Your task to perform on an android device: see sites visited before in the chrome app Image 0: 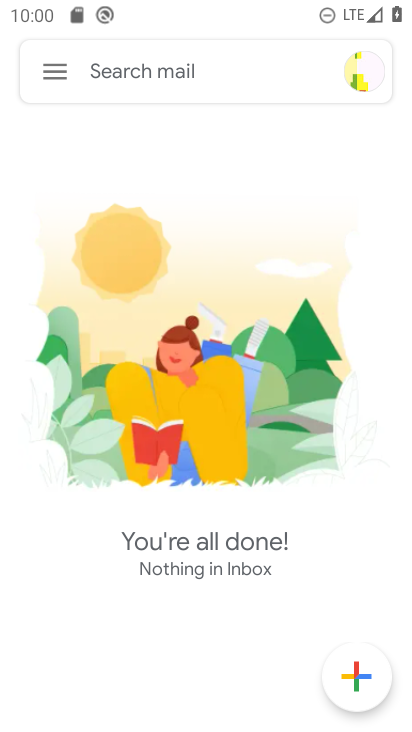
Step 0: press home button
Your task to perform on an android device: see sites visited before in the chrome app Image 1: 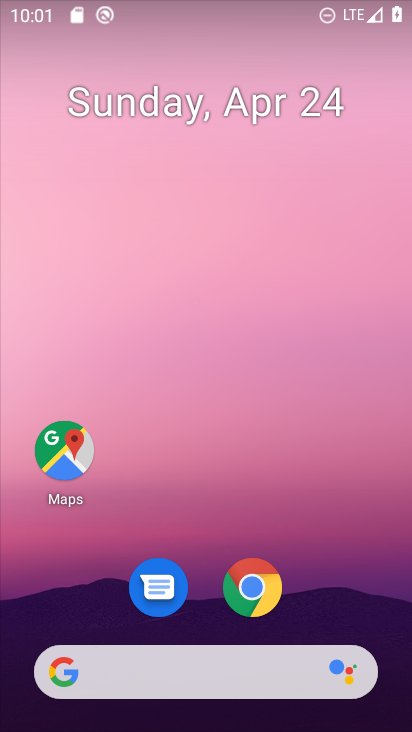
Step 1: drag from (384, 598) to (359, 112)
Your task to perform on an android device: see sites visited before in the chrome app Image 2: 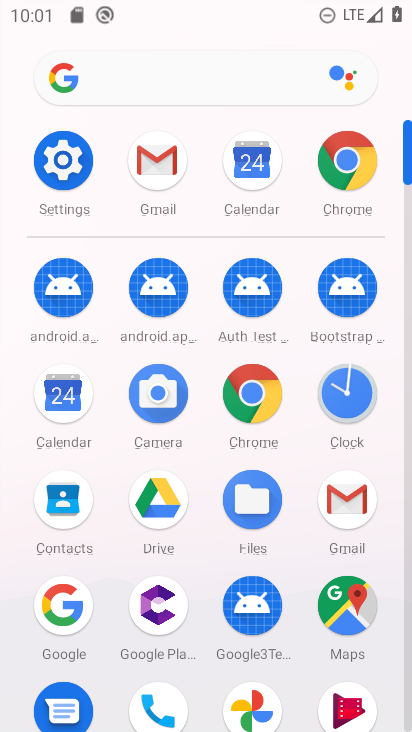
Step 2: click (266, 405)
Your task to perform on an android device: see sites visited before in the chrome app Image 3: 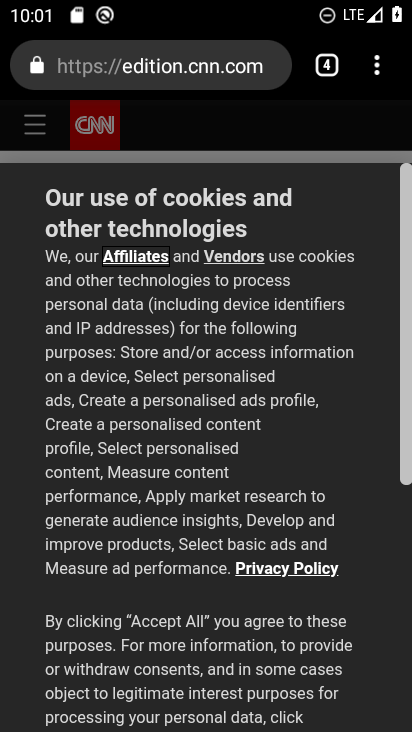
Step 3: task complete